Your task to perform on an android device: Add logitech g933 to the cart on walmart, then select checkout. Image 0: 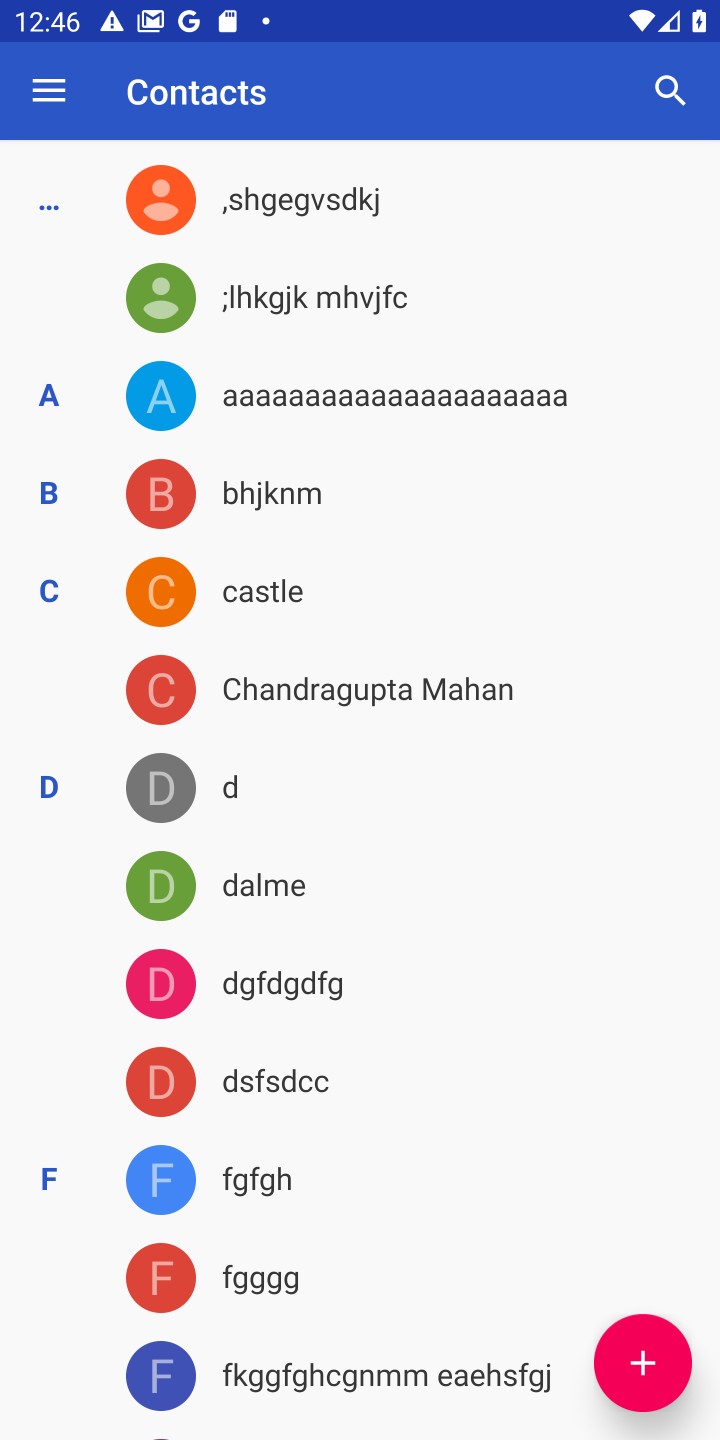
Step 0: press home button
Your task to perform on an android device: Add logitech g933 to the cart on walmart, then select checkout. Image 1: 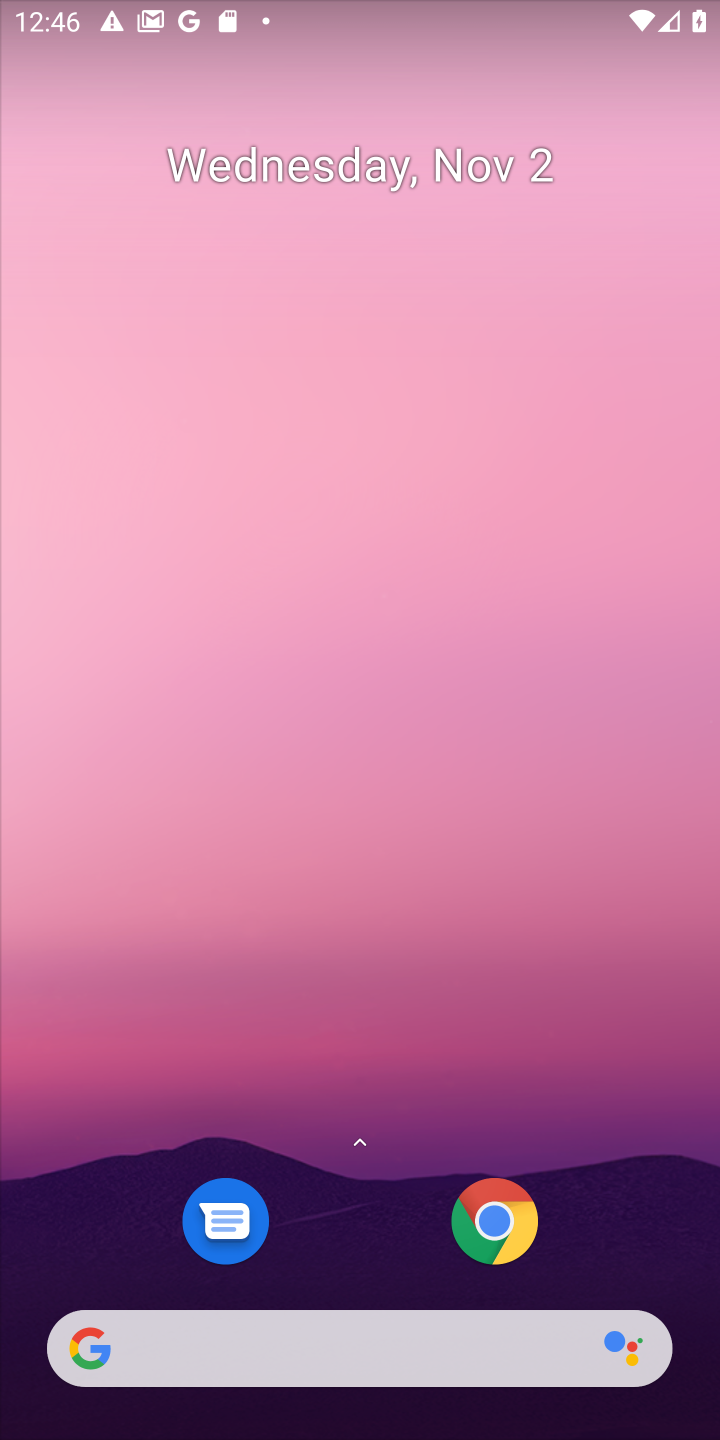
Step 1: click (368, 1374)
Your task to perform on an android device: Add logitech g933 to the cart on walmart, then select checkout. Image 2: 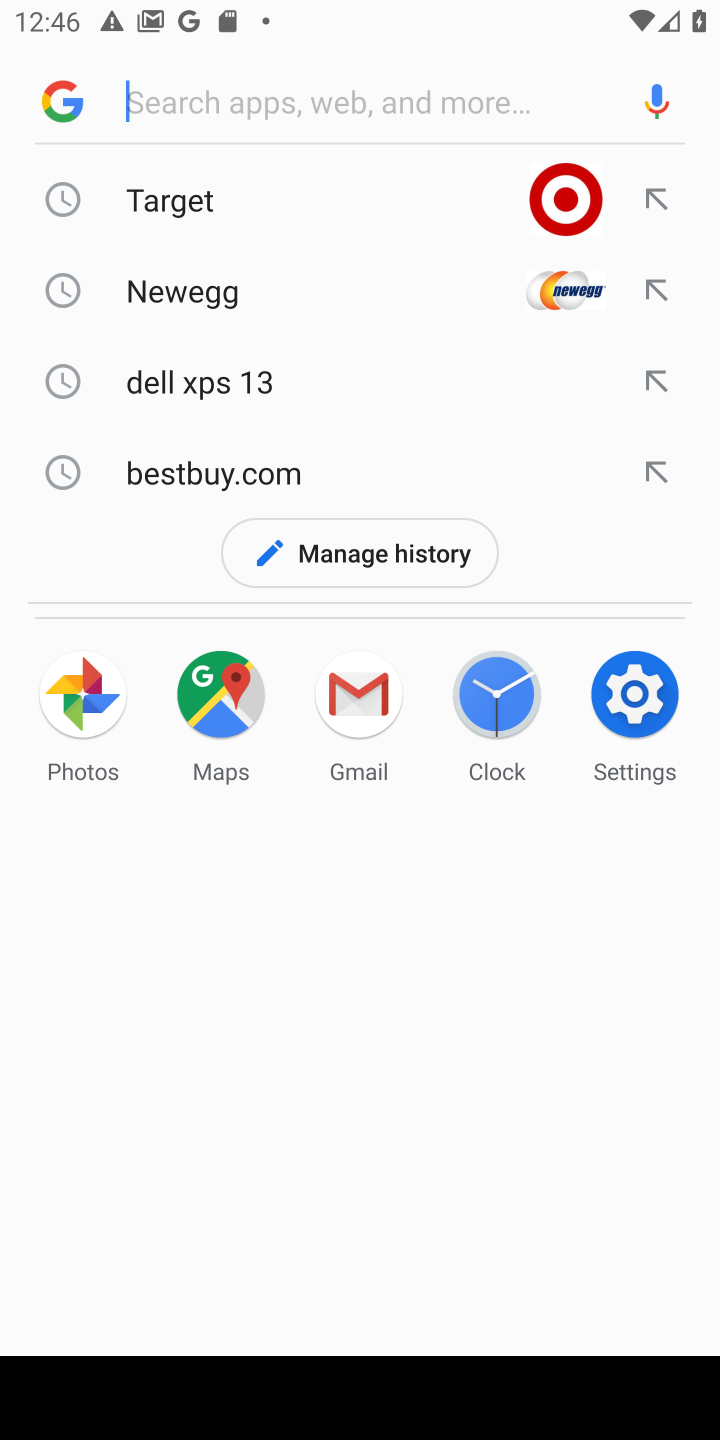
Step 2: type "walmart"
Your task to perform on an android device: Add logitech g933 to the cart on walmart, then select checkout. Image 3: 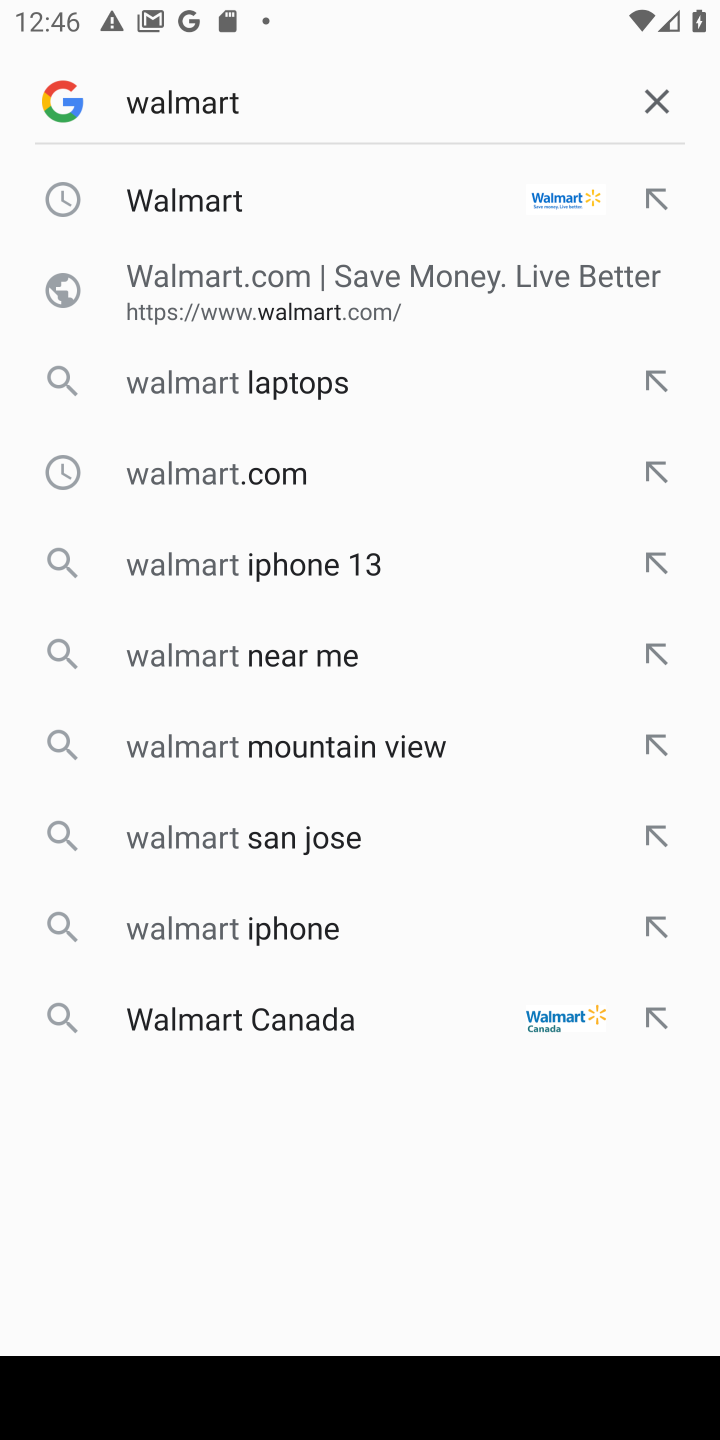
Step 3: click (194, 229)
Your task to perform on an android device: Add logitech g933 to the cart on walmart, then select checkout. Image 4: 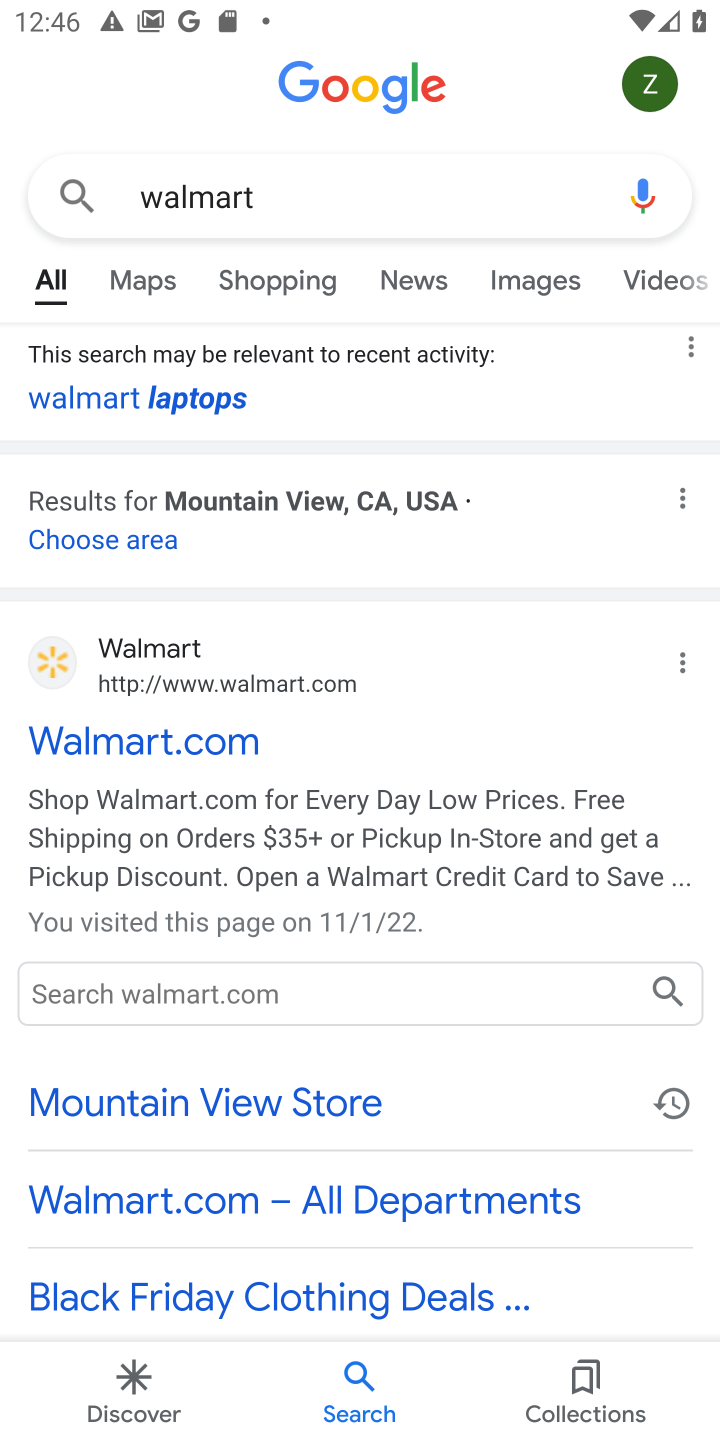
Step 4: click (143, 686)
Your task to perform on an android device: Add logitech g933 to the cart on walmart, then select checkout. Image 5: 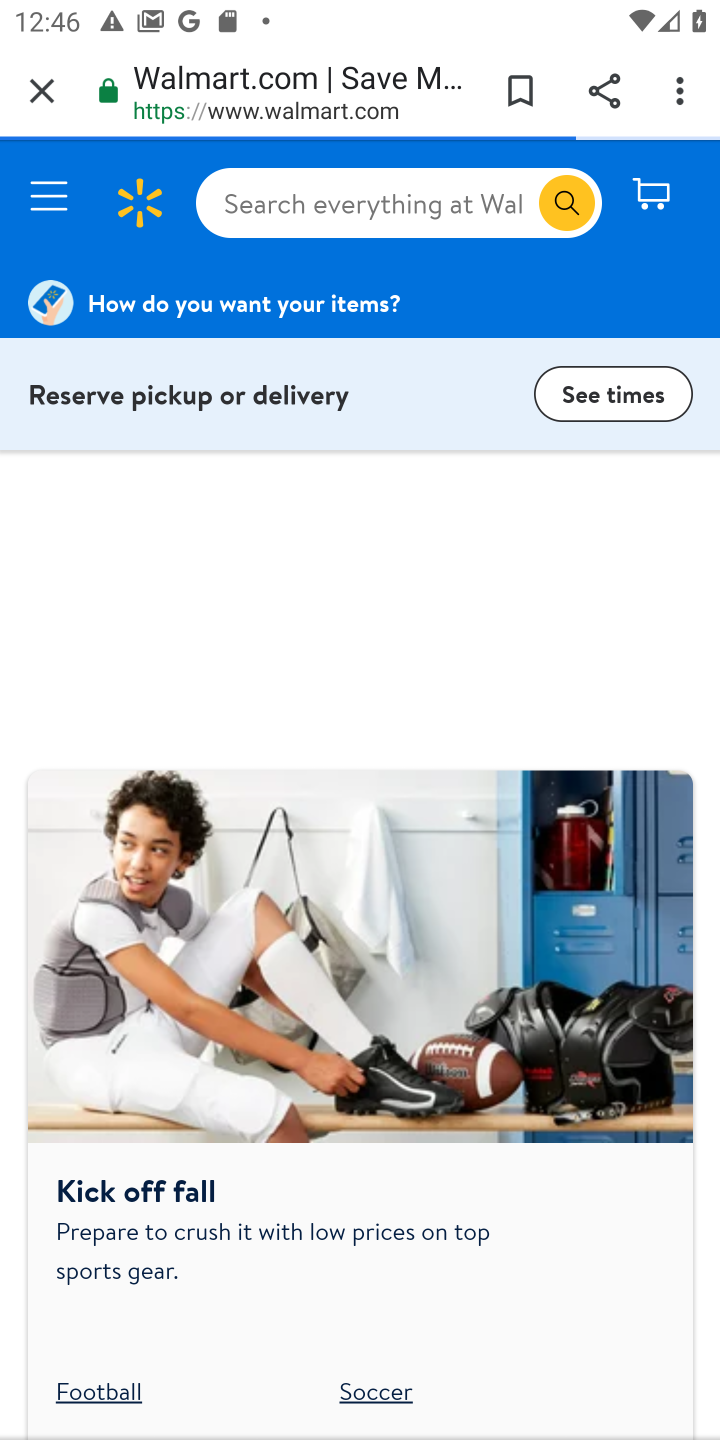
Step 5: click (353, 190)
Your task to perform on an android device: Add logitech g933 to the cart on walmart, then select checkout. Image 6: 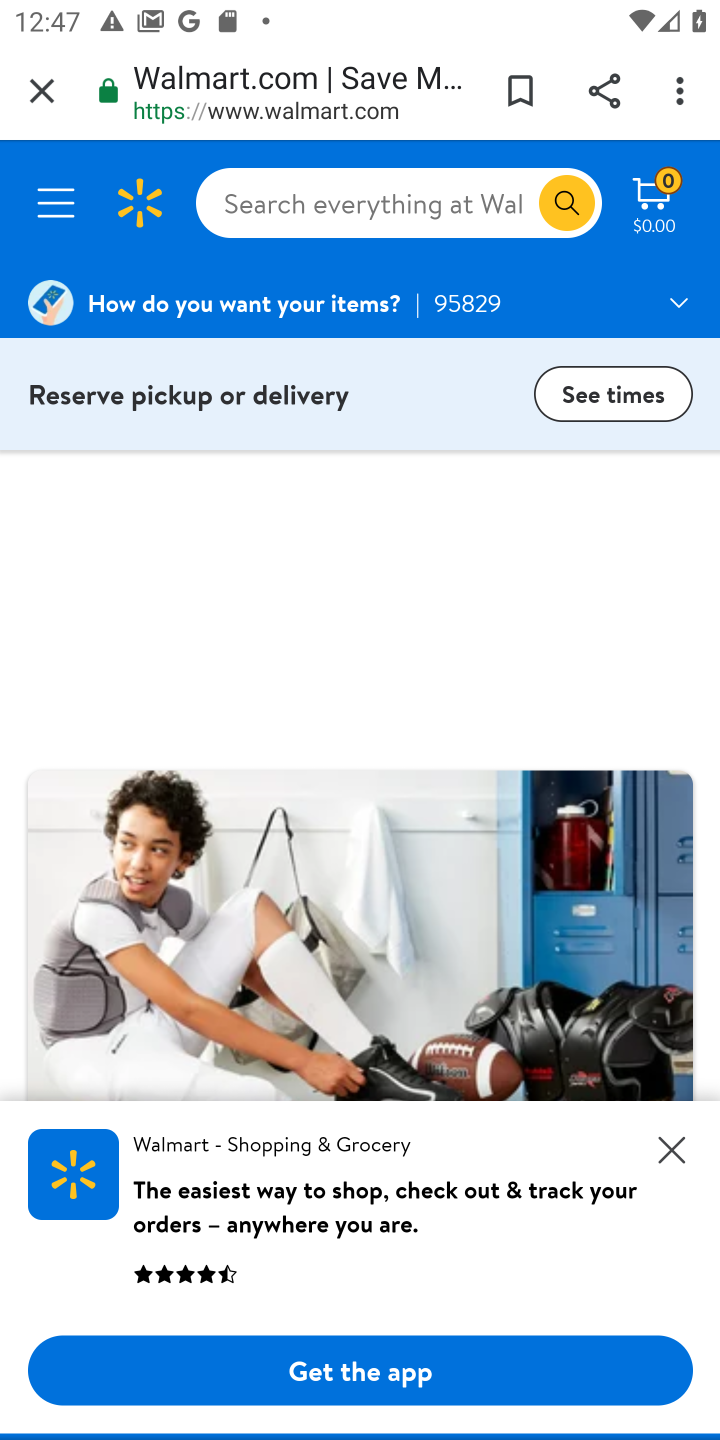
Step 6: type "logitech g933"
Your task to perform on an android device: Add logitech g933 to the cart on walmart, then select checkout. Image 7: 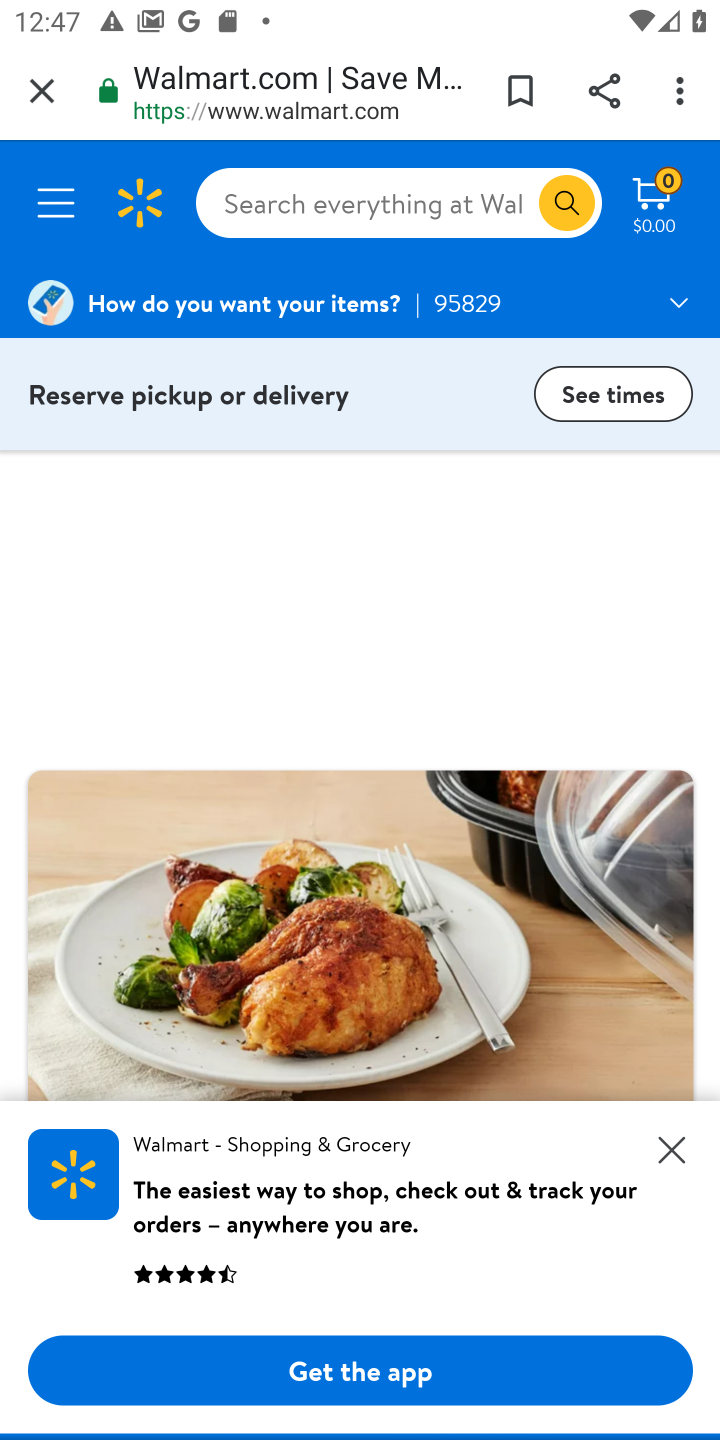
Step 7: click (686, 1151)
Your task to perform on an android device: Add logitech g933 to the cart on walmart, then select checkout. Image 8: 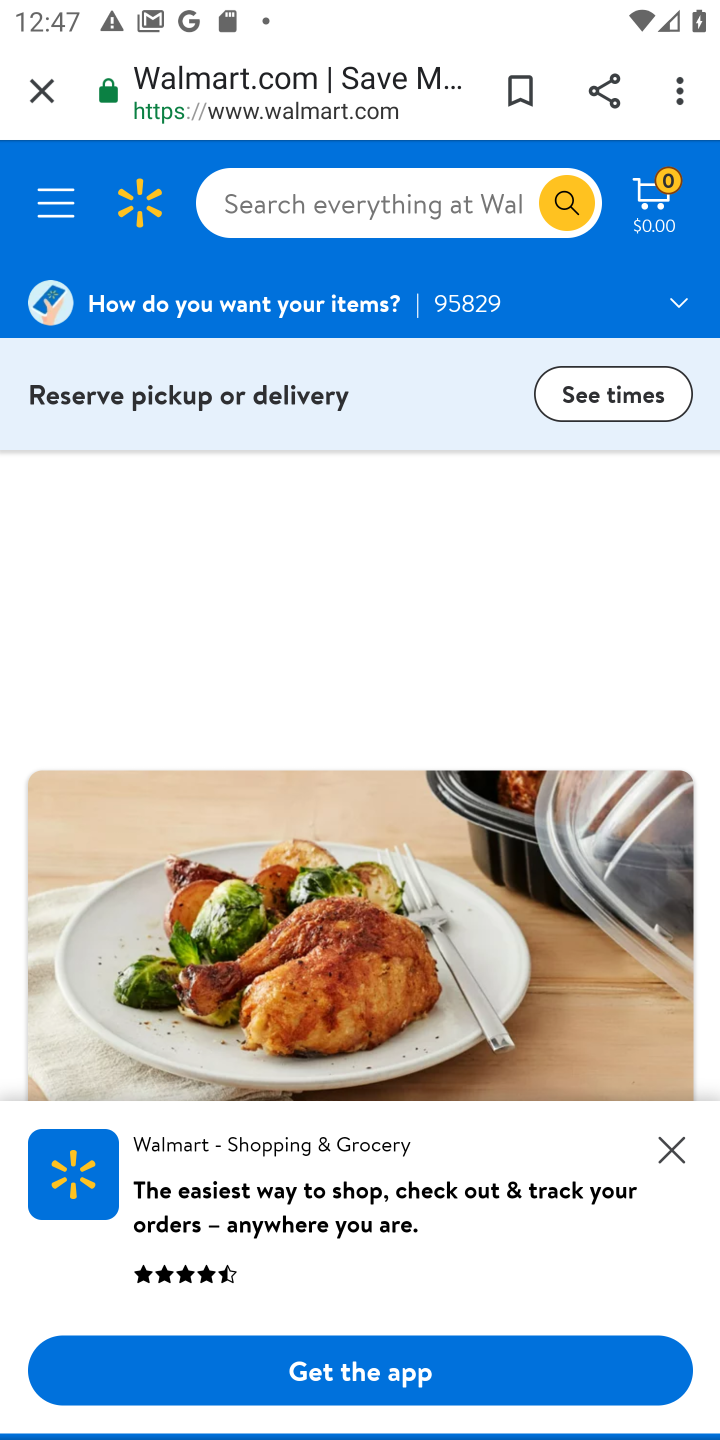
Step 8: click (372, 200)
Your task to perform on an android device: Add logitech g933 to the cart on walmart, then select checkout. Image 9: 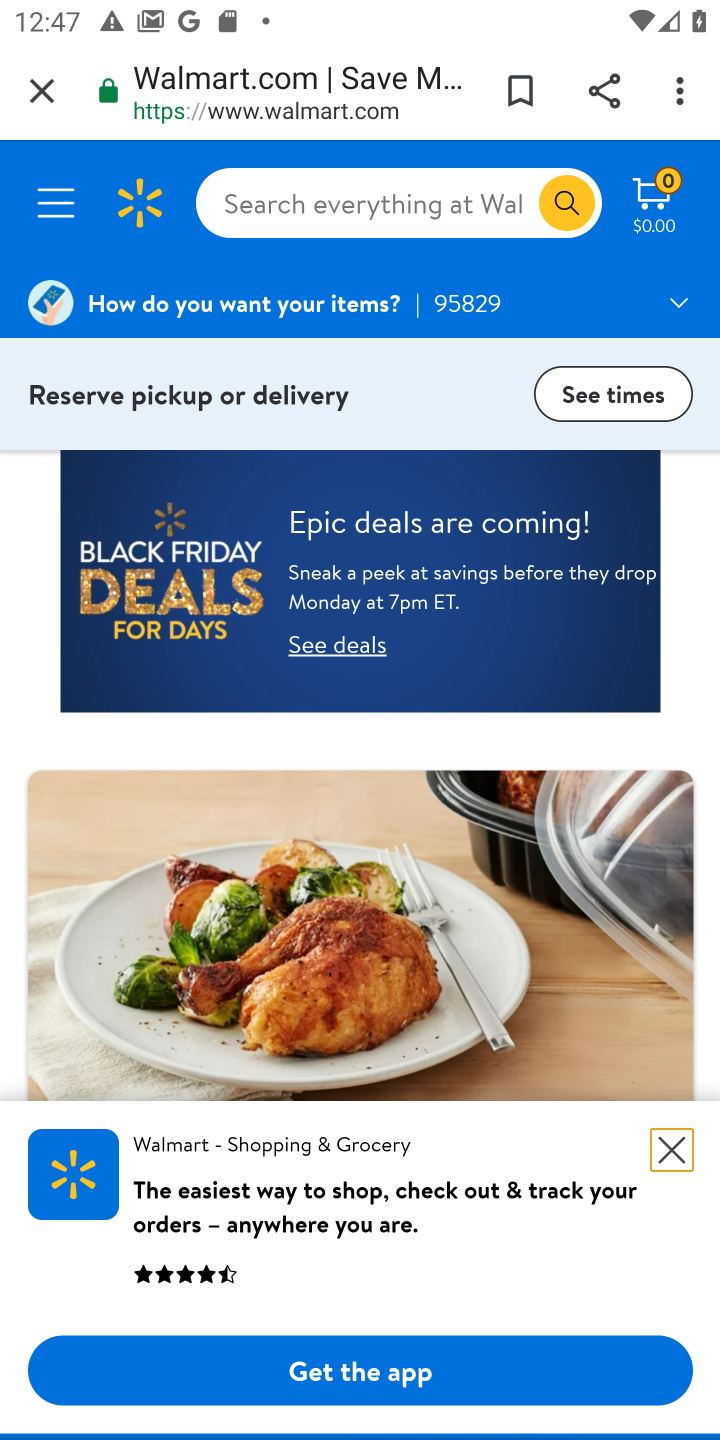
Step 9: click (372, 200)
Your task to perform on an android device: Add logitech g933 to the cart on walmart, then select checkout. Image 10: 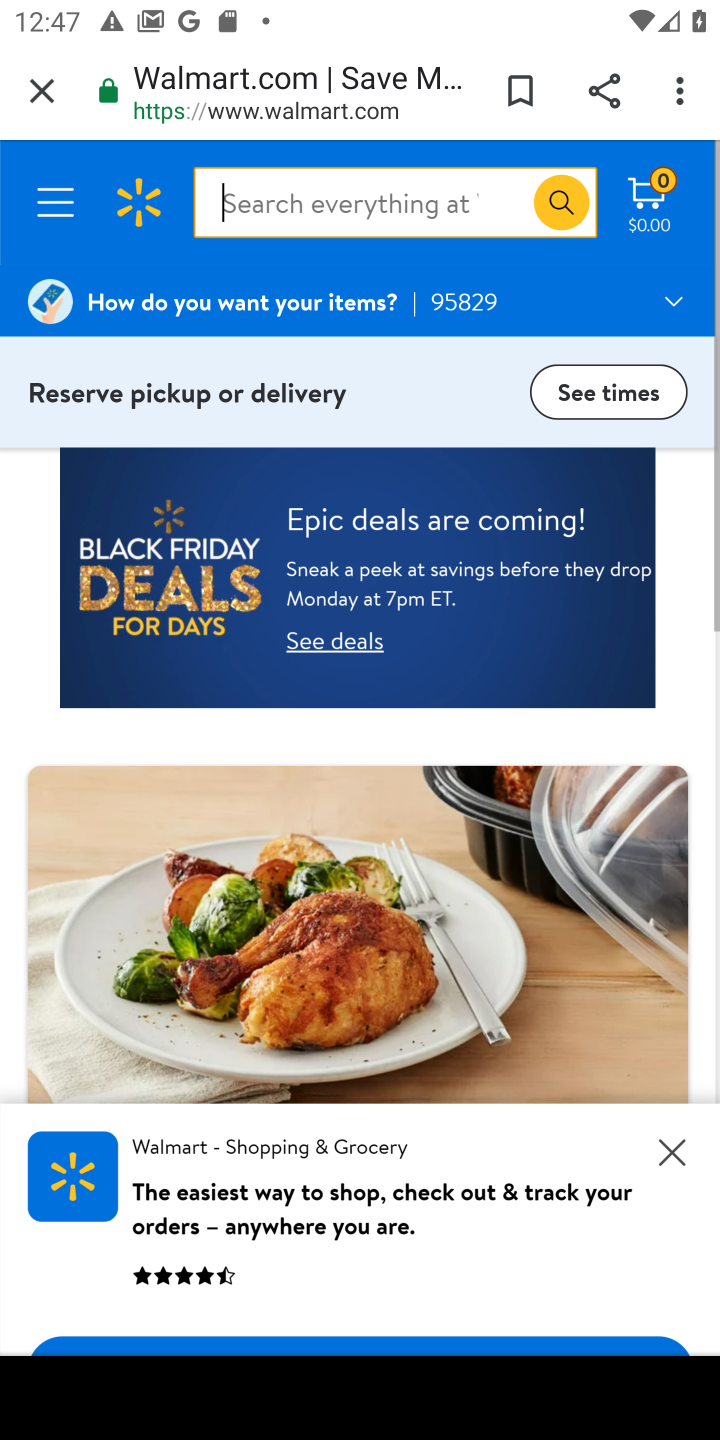
Step 10: click (372, 200)
Your task to perform on an android device: Add logitech g933 to the cart on walmart, then select checkout. Image 11: 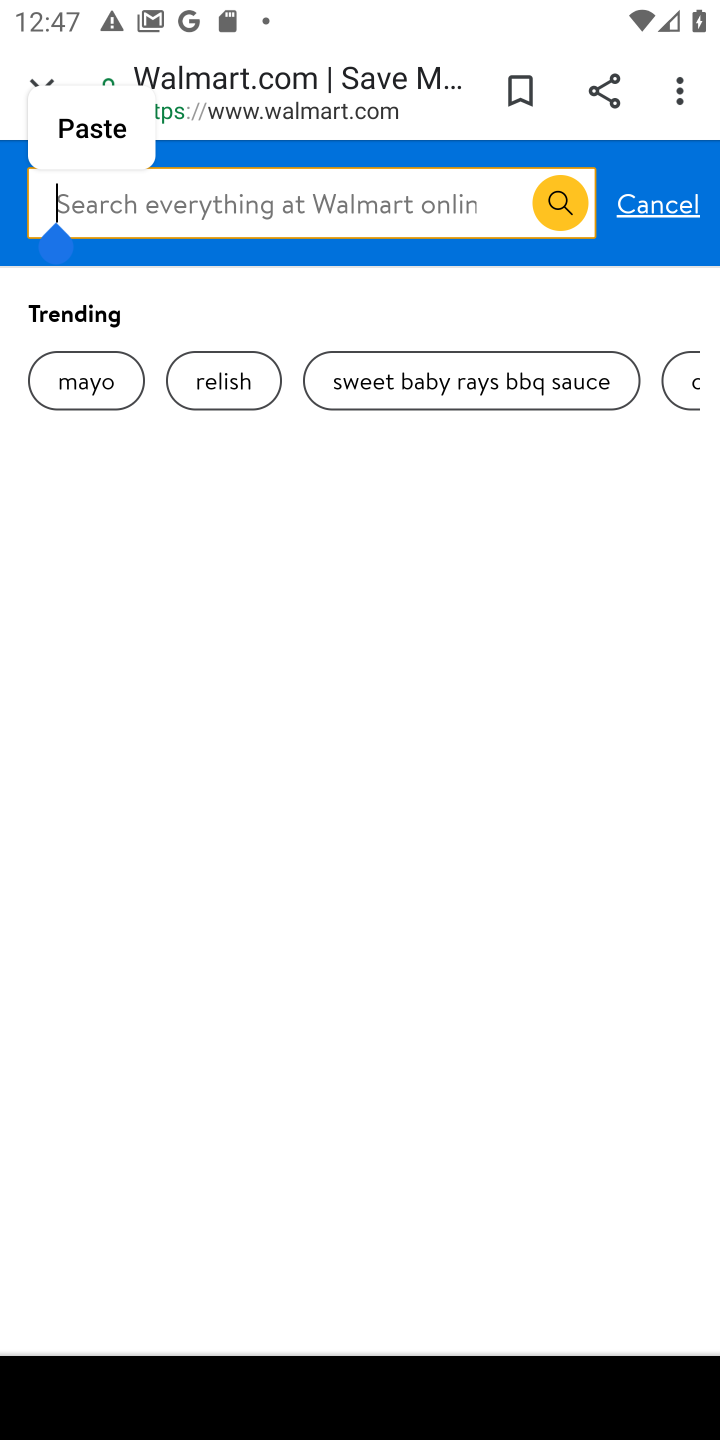
Step 11: type "logitech g933"
Your task to perform on an android device: Add logitech g933 to the cart on walmart, then select checkout. Image 12: 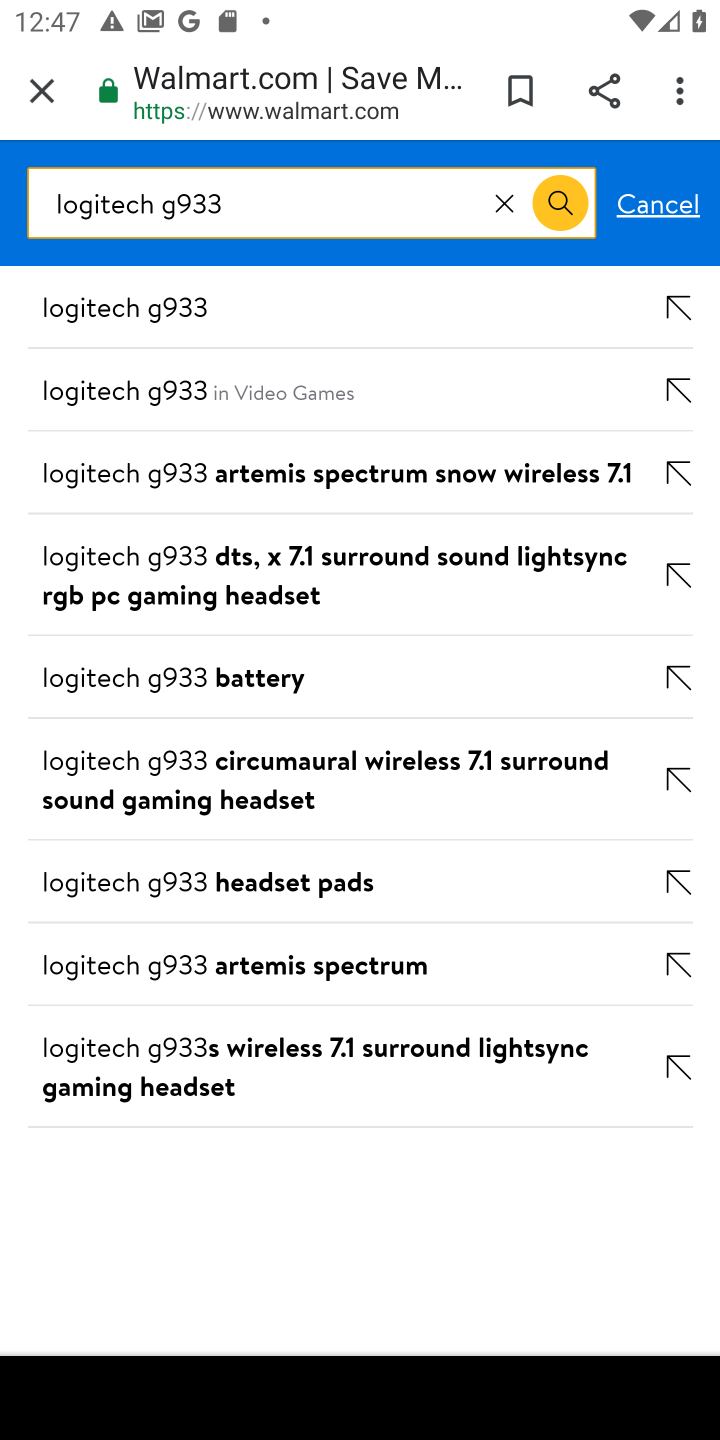
Step 12: click (220, 300)
Your task to perform on an android device: Add logitech g933 to the cart on walmart, then select checkout. Image 13: 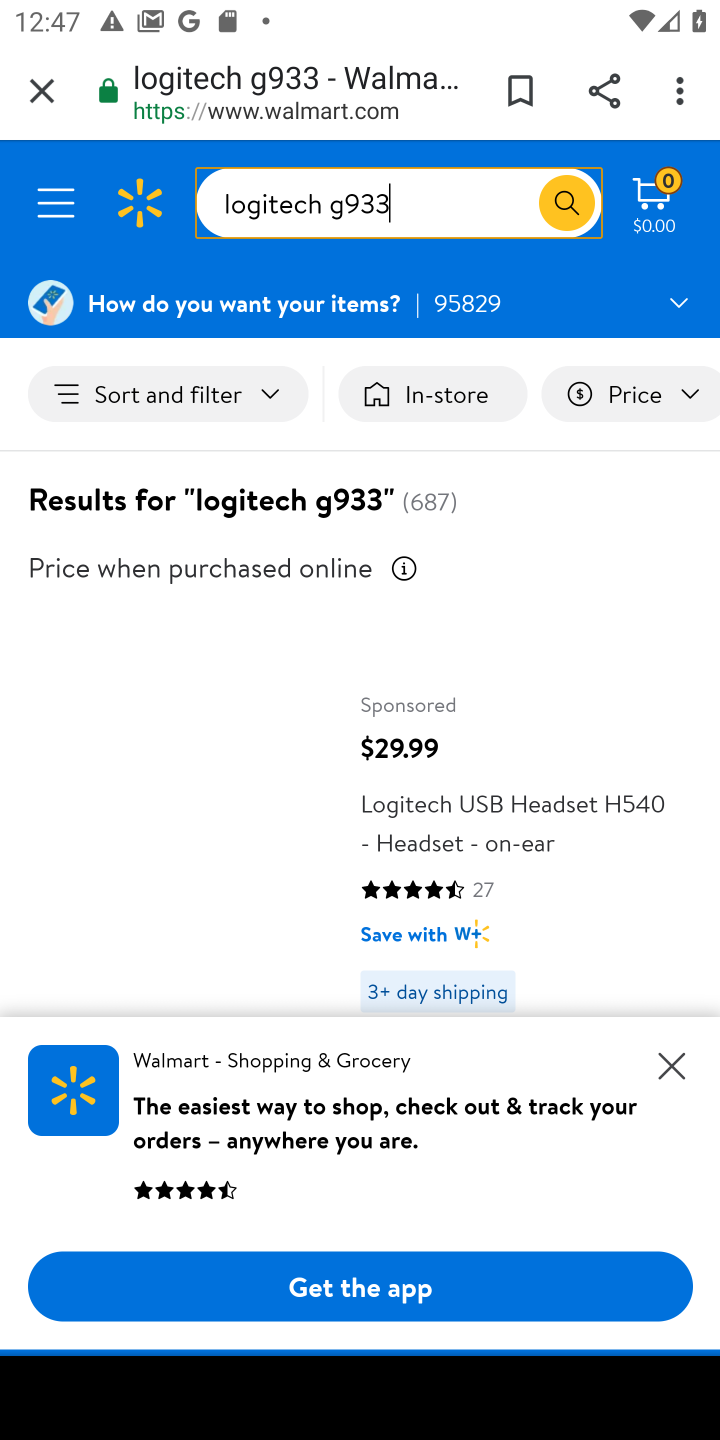
Step 13: click (671, 1073)
Your task to perform on an android device: Add logitech g933 to the cart on walmart, then select checkout. Image 14: 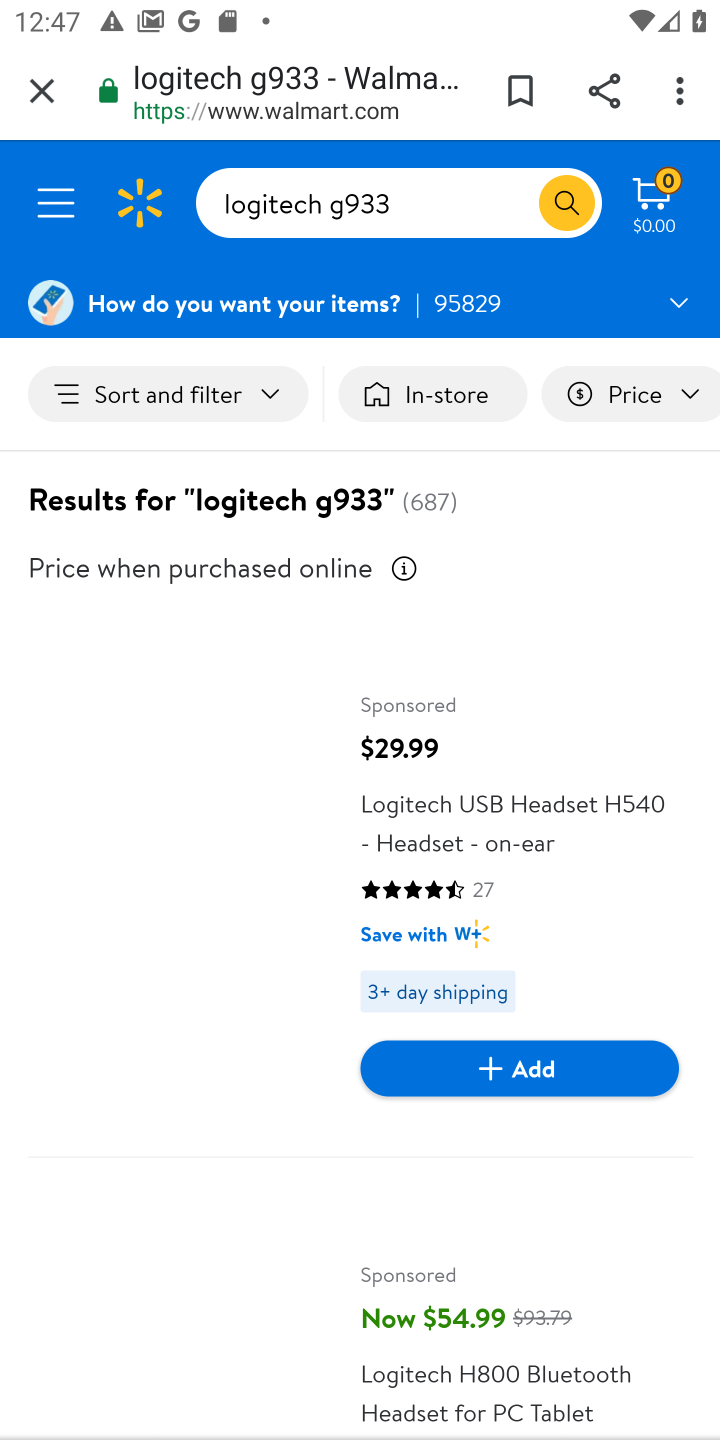
Step 14: click (592, 1085)
Your task to perform on an android device: Add logitech g933 to the cart on walmart, then select checkout. Image 15: 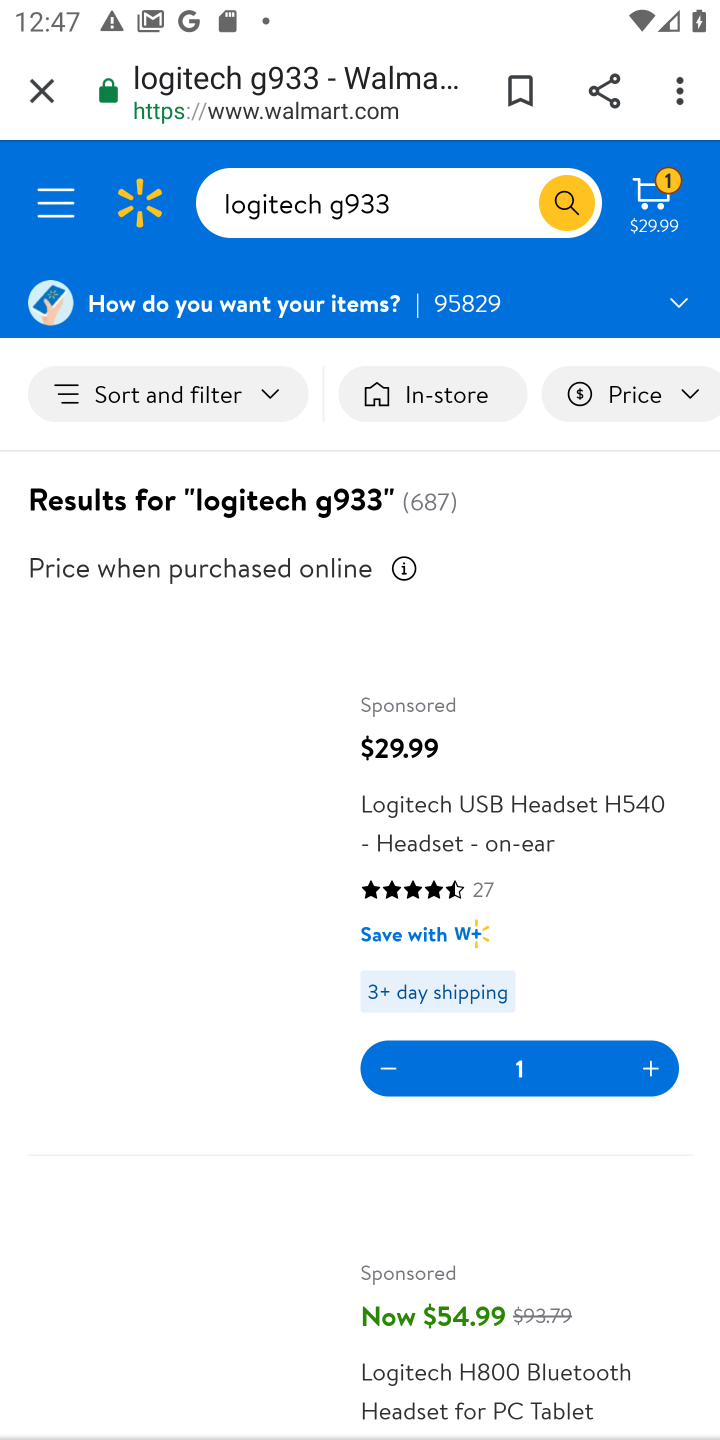
Step 15: task complete